Your task to perform on an android device: change your default location settings in chrome Image 0: 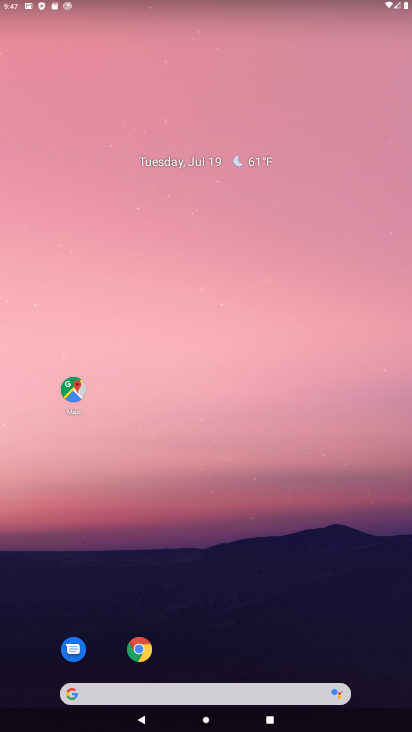
Step 0: drag from (367, 621) to (124, 9)
Your task to perform on an android device: change your default location settings in chrome Image 1: 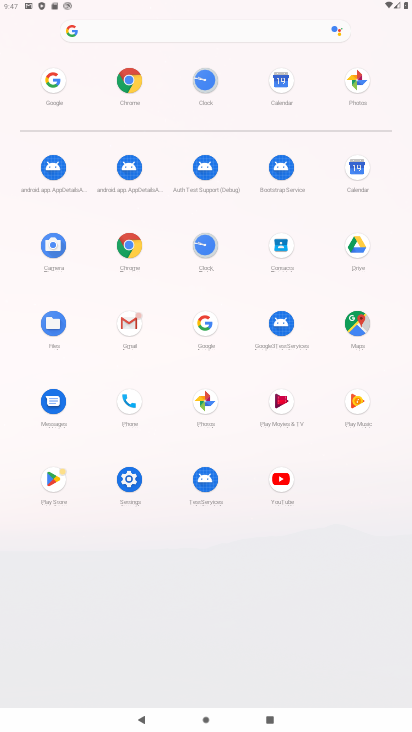
Step 1: click (128, 252)
Your task to perform on an android device: change your default location settings in chrome Image 2: 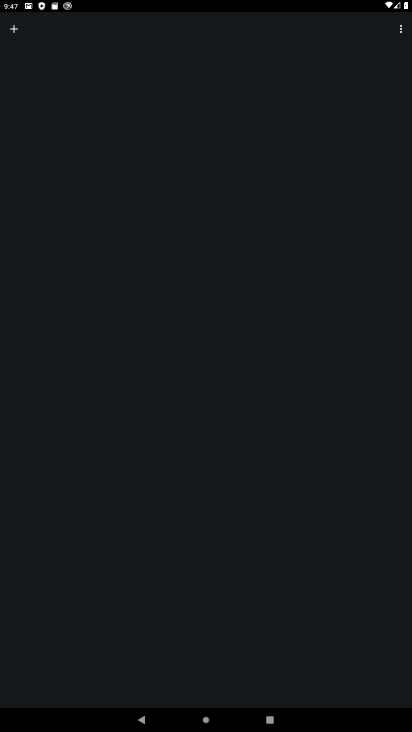
Step 2: click (401, 28)
Your task to perform on an android device: change your default location settings in chrome Image 3: 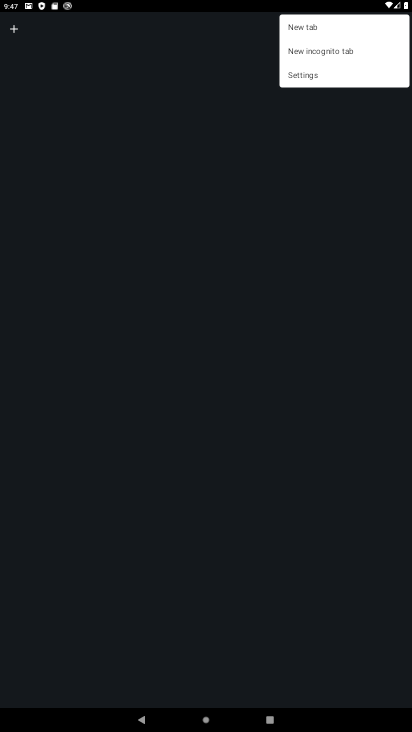
Step 3: click (320, 78)
Your task to perform on an android device: change your default location settings in chrome Image 4: 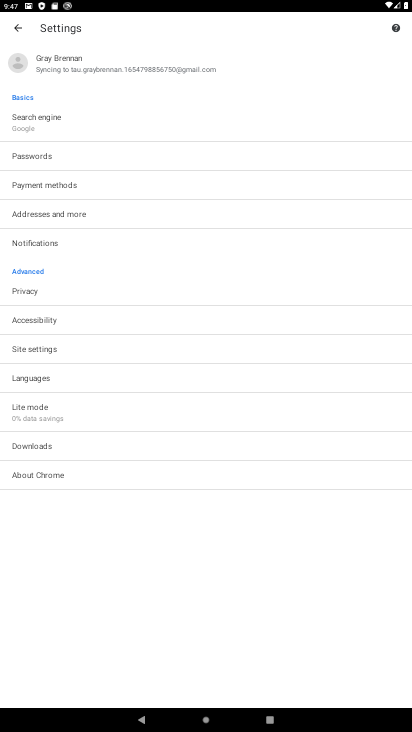
Step 4: click (65, 119)
Your task to perform on an android device: change your default location settings in chrome Image 5: 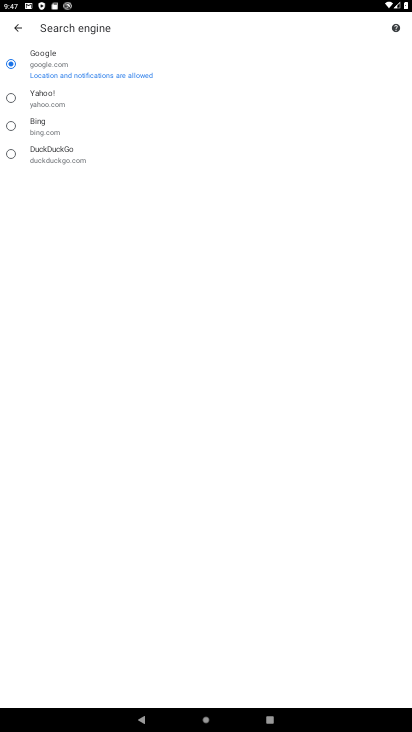
Step 5: click (44, 108)
Your task to perform on an android device: change your default location settings in chrome Image 6: 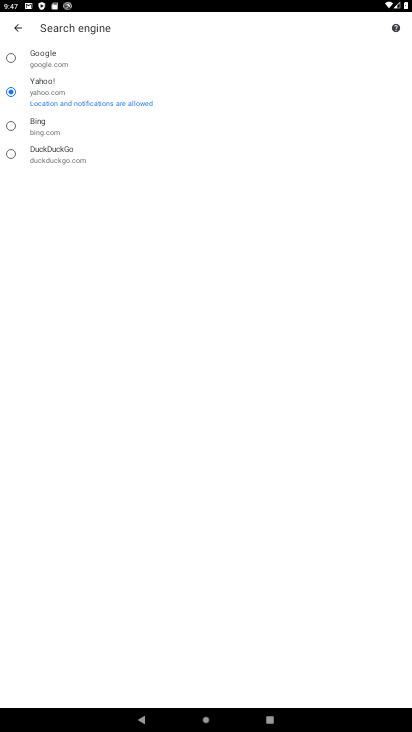
Step 6: task complete